Your task to perform on an android device: change notifications settings Image 0: 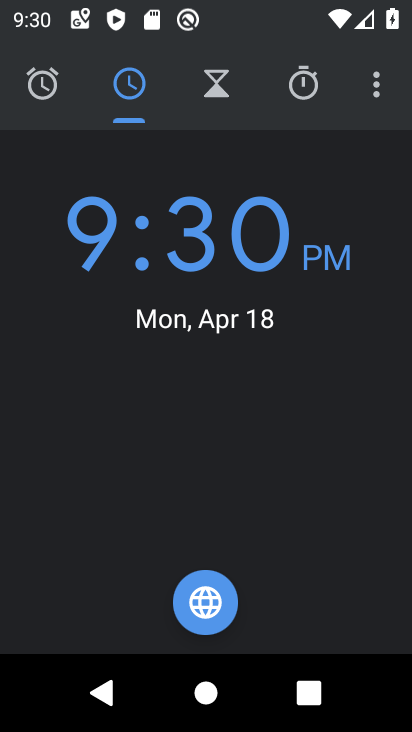
Step 0: press home button
Your task to perform on an android device: change notifications settings Image 1: 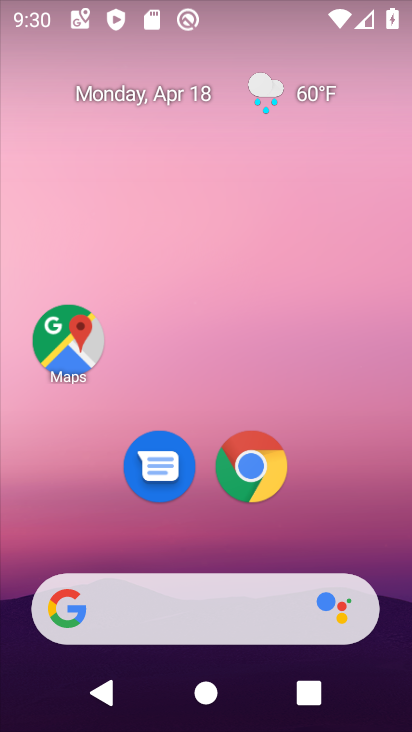
Step 1: drag from (227, 492) to (297, 131)
Your task to perform on an android device: change notifications settings Image 2: 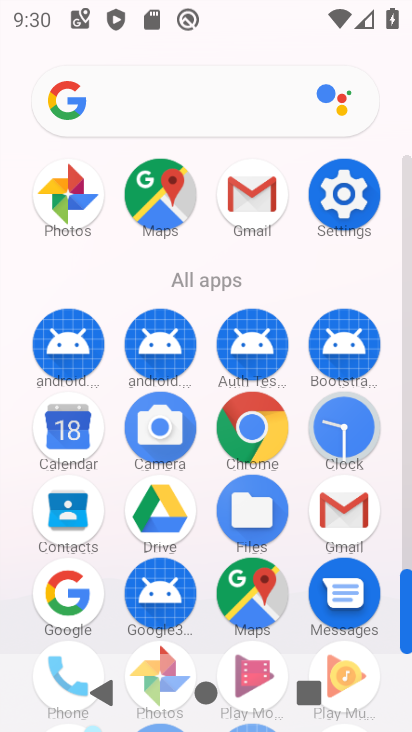
Step 2: drag from (296, 552) to (303, 451)
Your task to perform on an android device: change notifications settings Image 3: 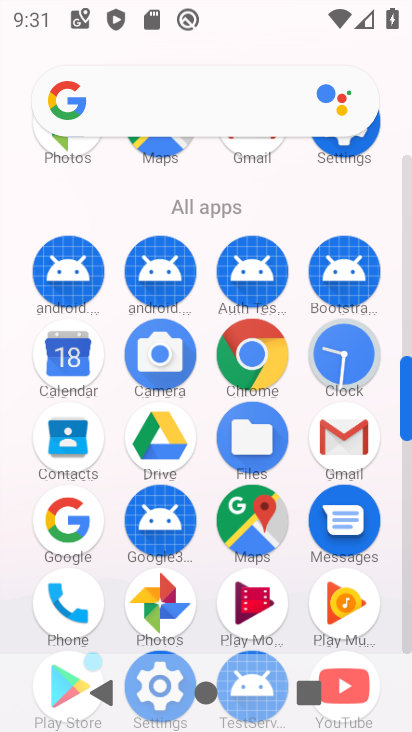
Step 3: click (358, 437)
Your task to perform on an android device: change notifications settings Image 4: 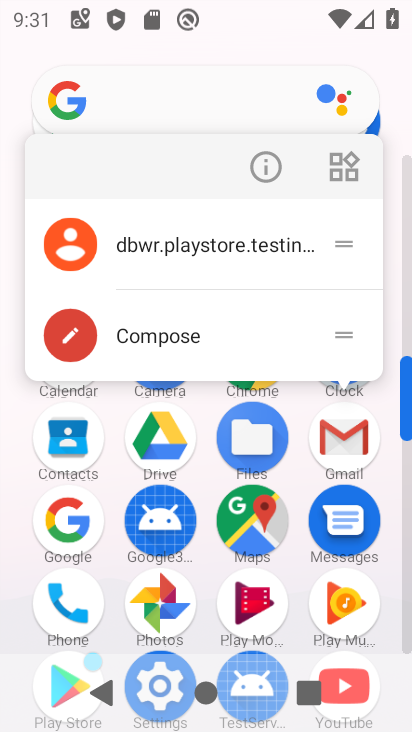
Step 4: click (333, 437)
Your task to perform on an android device: change notifications settings Image 5: 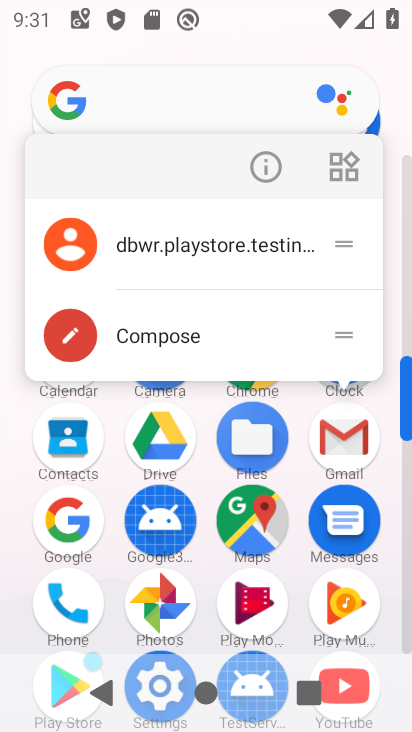
Step 5: click (333, 437)
Your task to perform on an android device: change notifications settings Image 6: 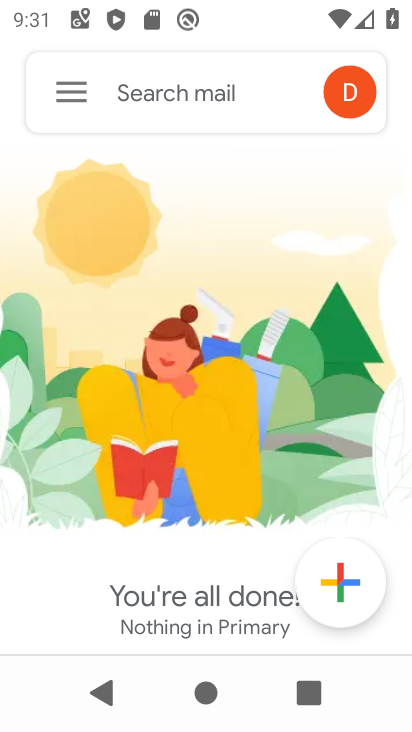
Step 6: click (76, 89)
Your task to perform on an android device: change notifications settings Image 7: 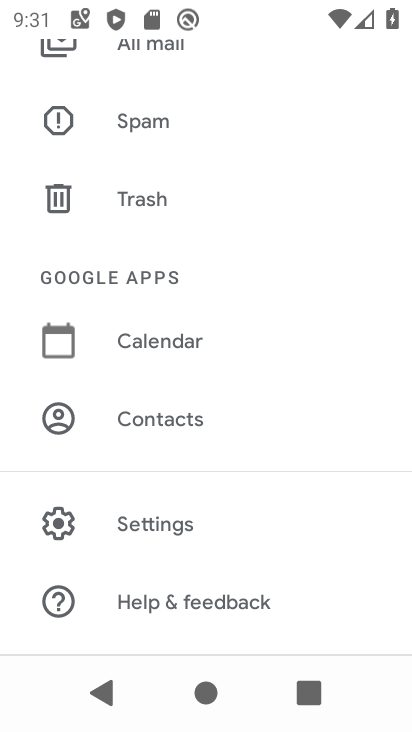
Step 7: click (149, 538)
Your task to perform on an android device: change notifications settings Image 8: 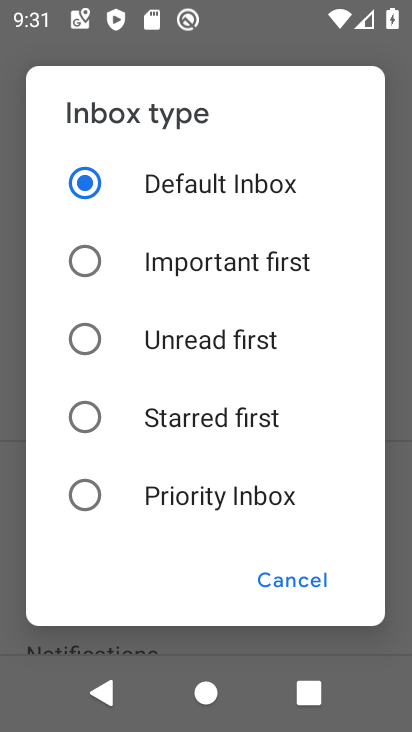
Step 8: press back button
Your task to perform on an android device: change notifications settings Image 9: 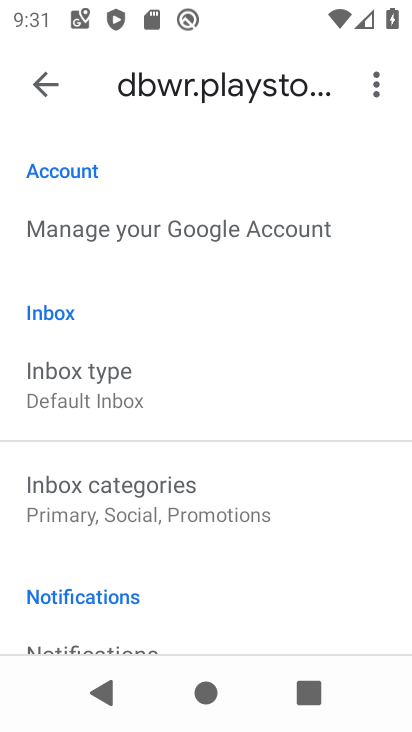
Step 9: drag from (166, 630) to (199, 366)
Your task to perform on an android device: change notifications settings Image 10: 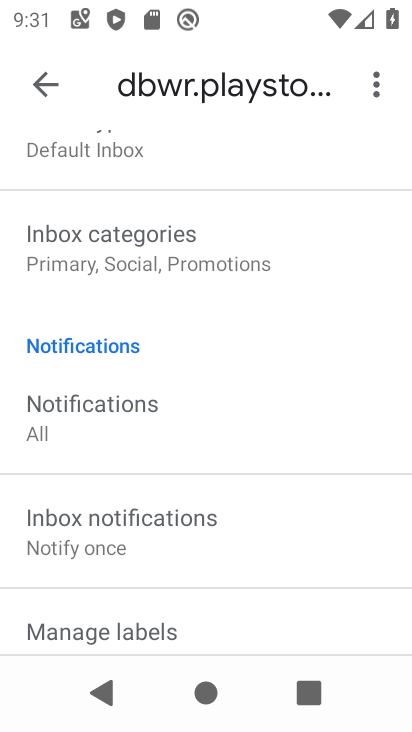
Step 10: drag from (198, 602) to (212, 435)
Your task to perform on an android device: change notifications settings Image 11: 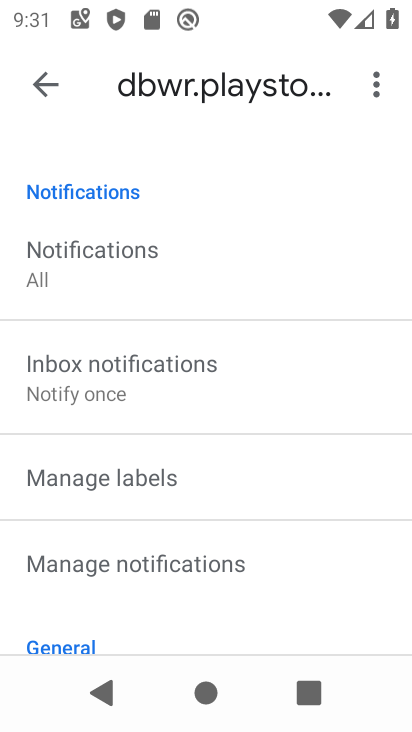
Step 11: click (170, 562)
Your task to perform on an android device: change notifications settings Image 12: 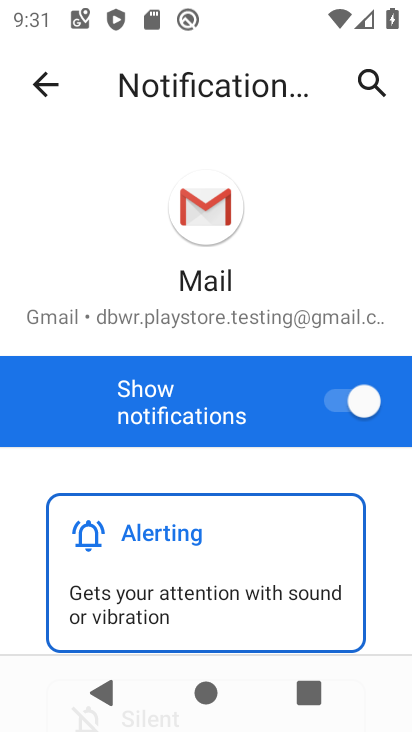
Step 12: click (326, 404)
Your task to perform on an android device: change notifications settings Image 13: 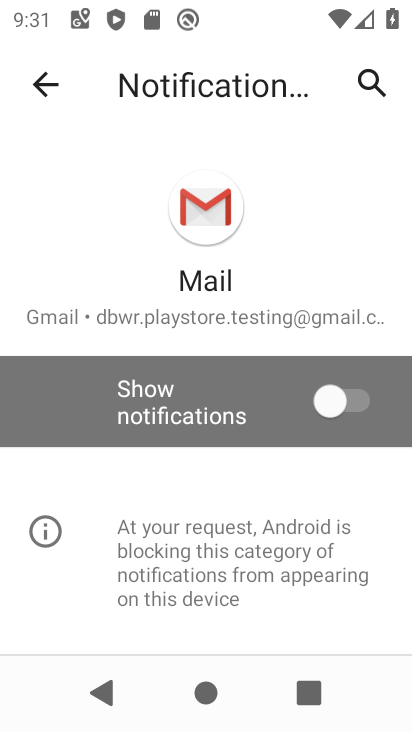
Step 13: task complete